Your task to perform on an android device: turn off improve location accuracy Image 0: 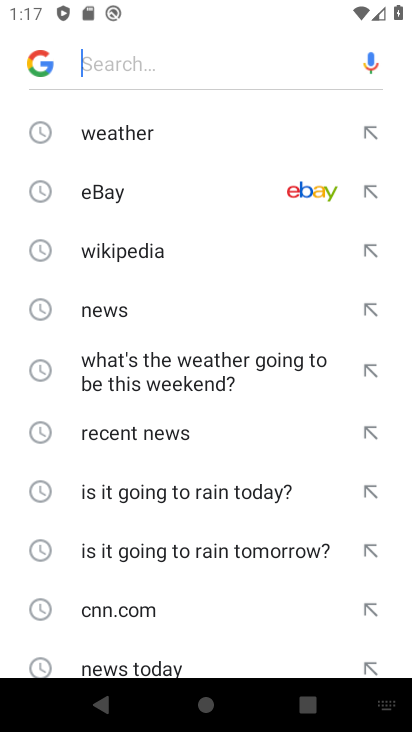
Step 0: press home button
Your task to perform on an android device: turn off improve location accuracy Image 1: 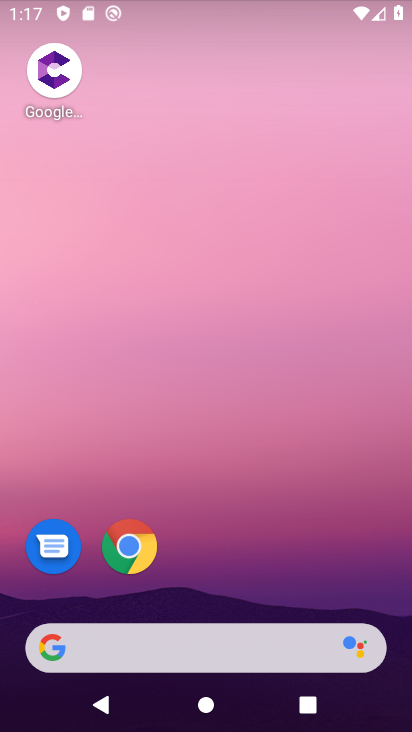
Step 1: drag from (252, 668) to (175, 16)
Your task to perform on an android device: turn off improve location accuracy Image 2: 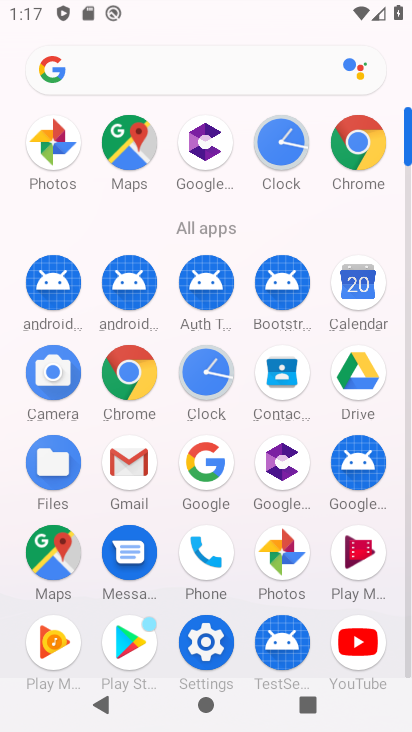
Step 2: click (212, 646)
Your task to perform on an android device: turn off improve location accuracy Image 3: 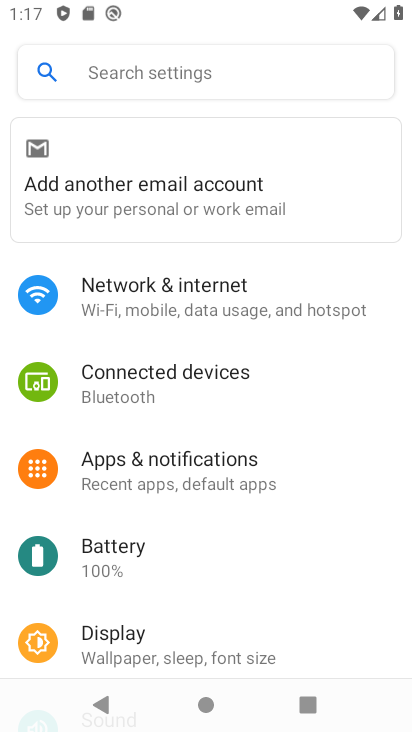
Step 3: drag from (212, 646) to (284, 195)
Your task to perform on an android device: turn off improve location accuracy Image 4: 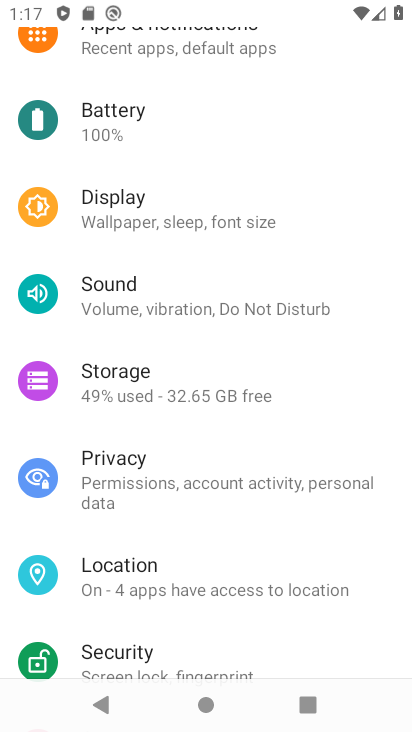
Step 4: click (167, 577)
Your task to perform on an android device: turn off improve location accuracy Image 5: 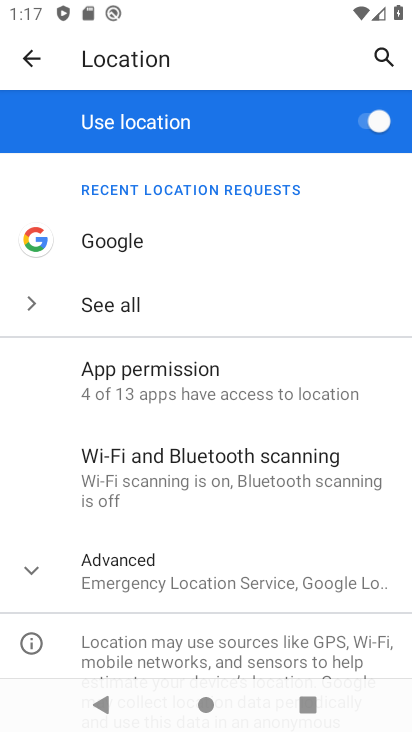
Step 5: drag from (149, 623) to (148, 224)
Your task to perform on an android device: turn off improve location accuracy Image 6: 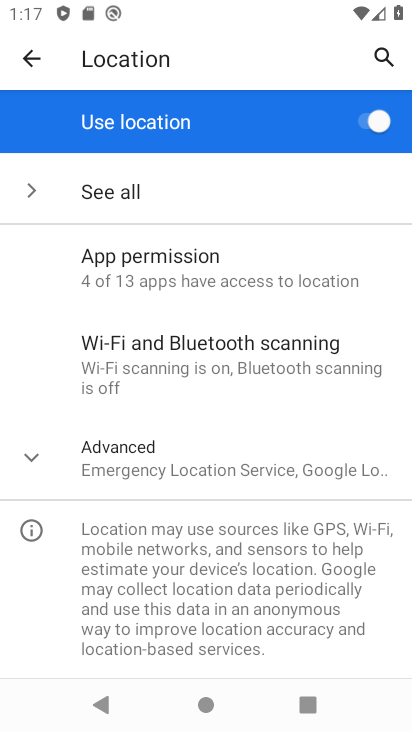
Step 6: click (138, 451)
Your task to perform on an android device: turn off improve location accuracy Image 7: 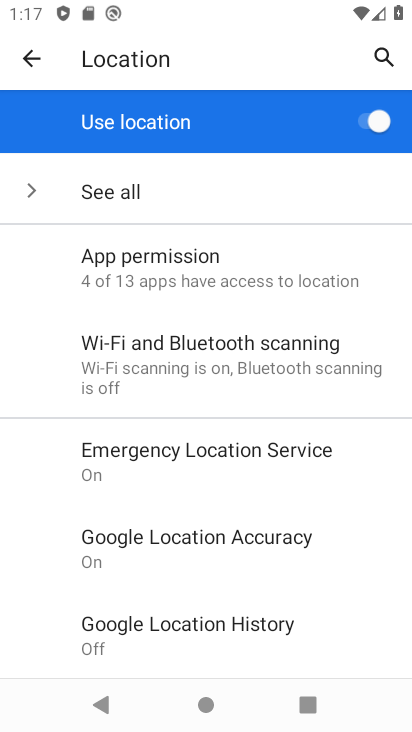
Step 7: click (204, 559)
Your task to perform on an android device: turn off improve location accuracy Image 8: 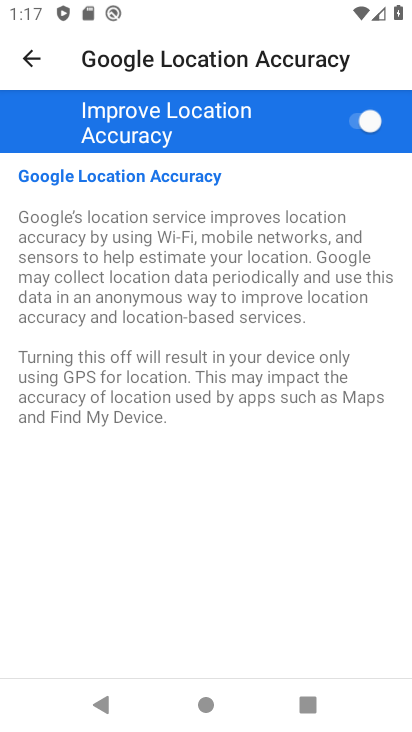
Step 8: click (361, 125)
Your task to perform on an android device: turn off improve location accuracy Image 9: 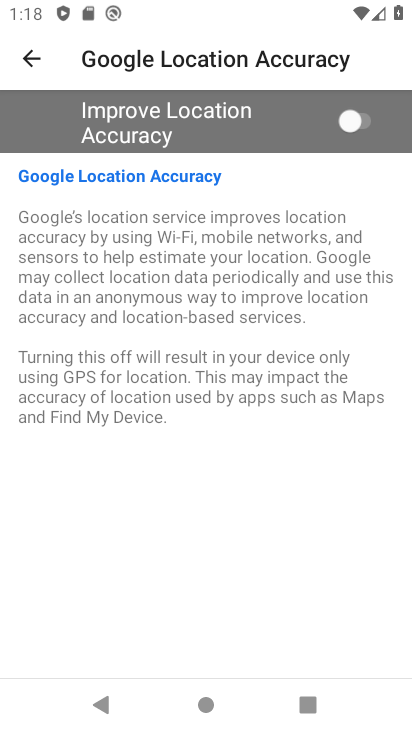
Step 9: task complete